Your task to perform on an android device: turn on notifications settings in the gmail app Image 0: 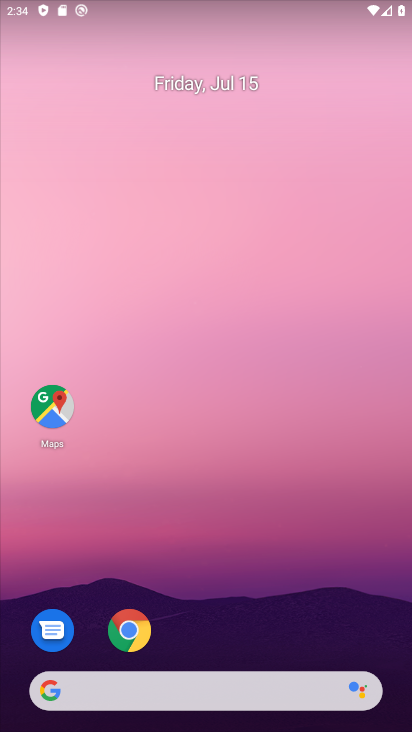
Step 0: drag from (267, 596) to (228, 161)
Your task to perform on an android device: turn on notifications settings in the gmail app Image 1: 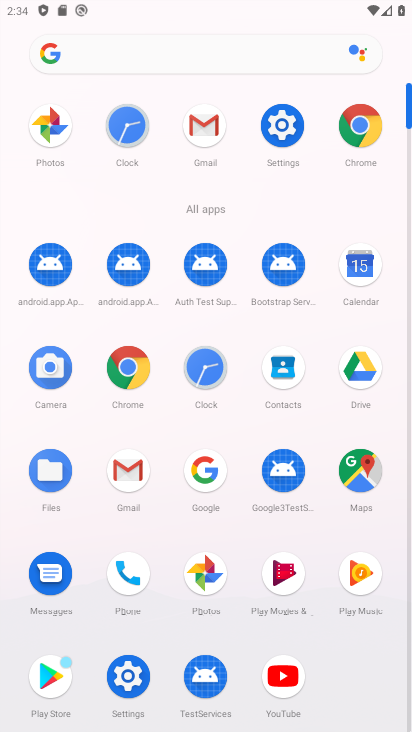
Step 1: click (197, 145)
Your task to perform on an android device: turn on notifications settings in the gmail app Image 2: 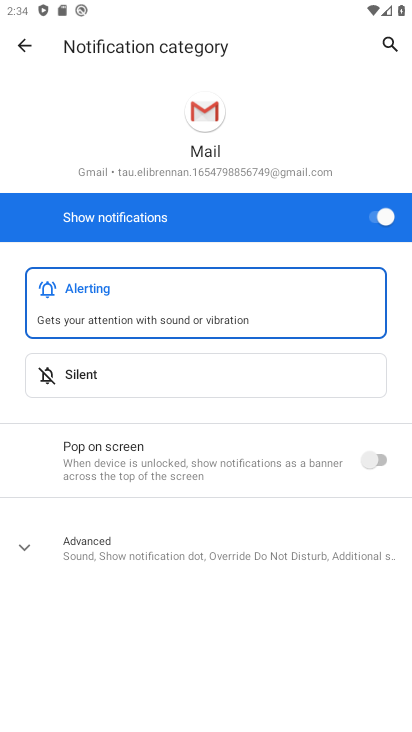
Step 2: task complete